Your task to perform on an android device: check data usage Image 0: 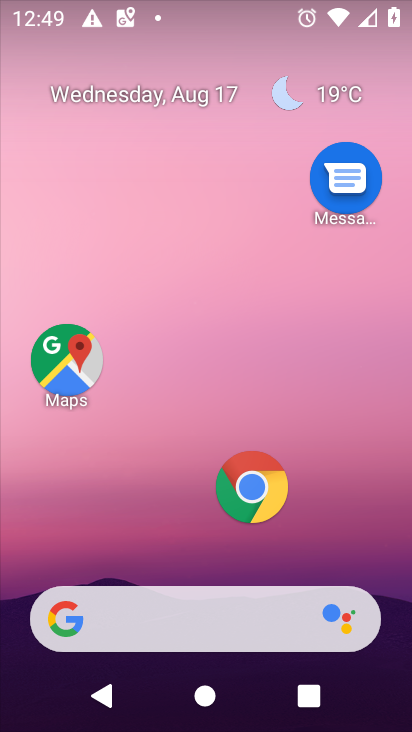
Step 0: drag from (101, 573) to (203, 66)
Your task to perform on an android device: check data usage Image 1: 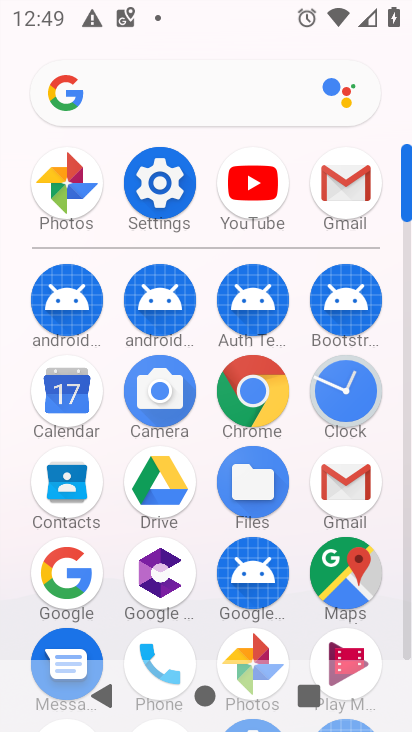
Step 1: click (161, 182)
Your task to perform on an android device: check data usage Image 2: 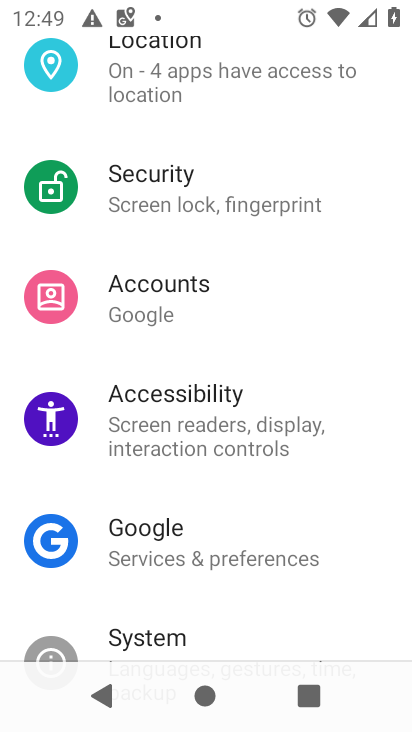
Step 2: drag from (201, 156) to (186, 716)
Your task to perform on an android device: check data usage Image 3: 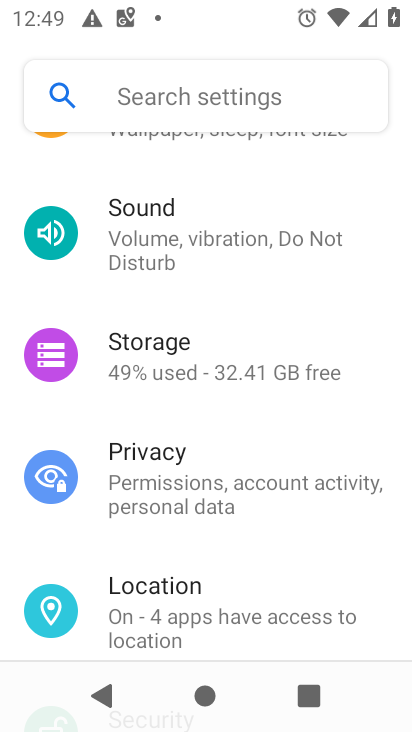
Step 3: drag from (263, 197) to (200, 635)
Your task to perform on an android device: check data usage Image 4: 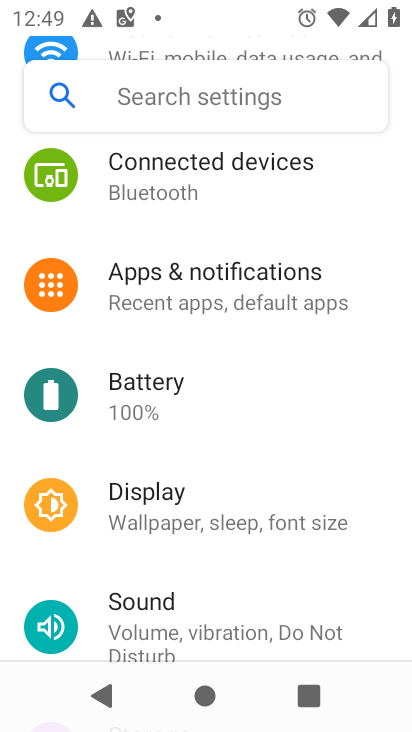
Step 4: drag from (216, 165) to (174, 637)
Your task to perform on an android device: check data usage Image 5: 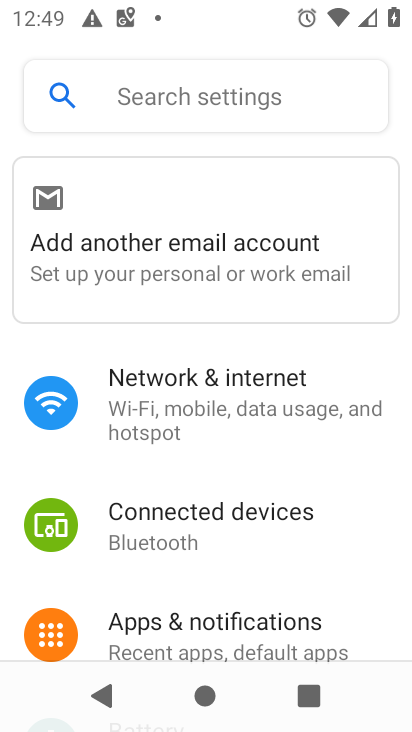
Step 5: click (287, 395)
Your task to perform on an android device: check data usage Image 6: 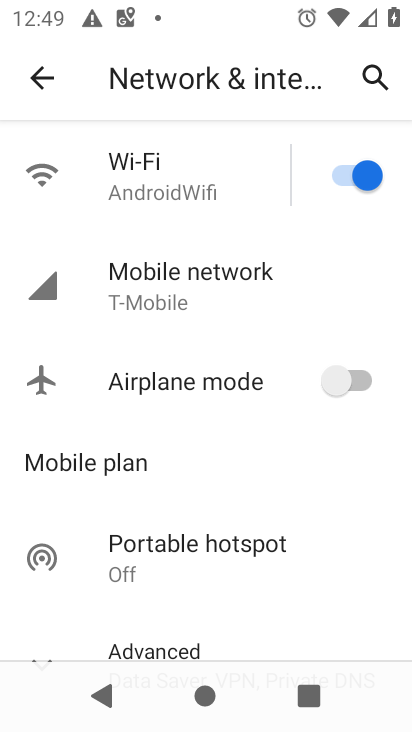
Step 6: click (215, 275)
Your task to perform on an android device: check data usage Image 7: 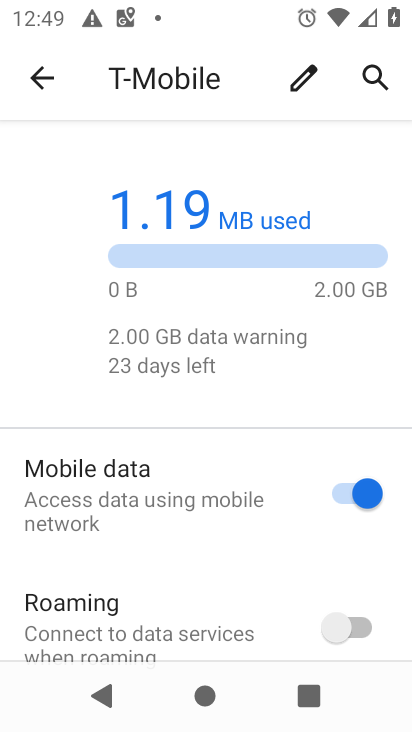
Step 7: drag from (154, 643) to (227, 69)
Your task to perform on an android device: check data usage Image 8: 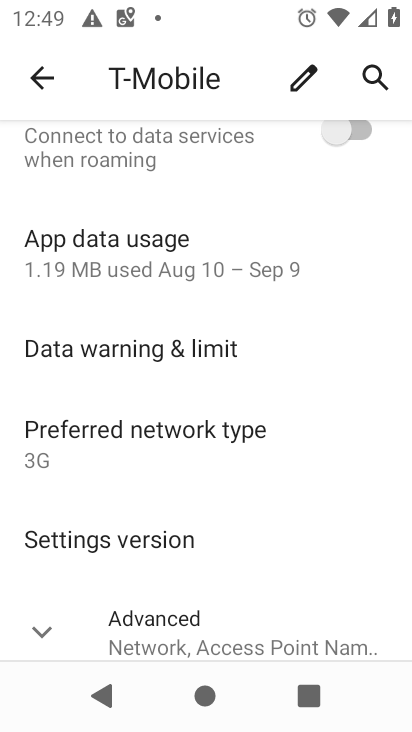
Step 8: click (121, 259)
Your task to perform on an android device: check data usage Image 9: 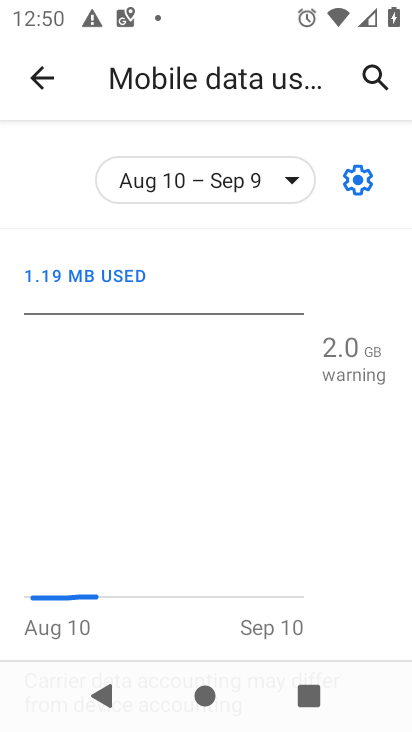
Step 9: task complete